Your task to perform on an android device: open a new tab in the chrome app Image 0: 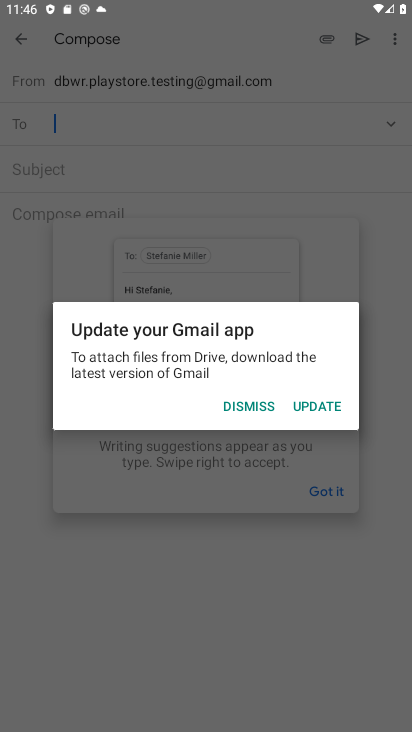
Step 0: press home button
Your task to perform on an android device: open a new tab in the chrome app Image 1: 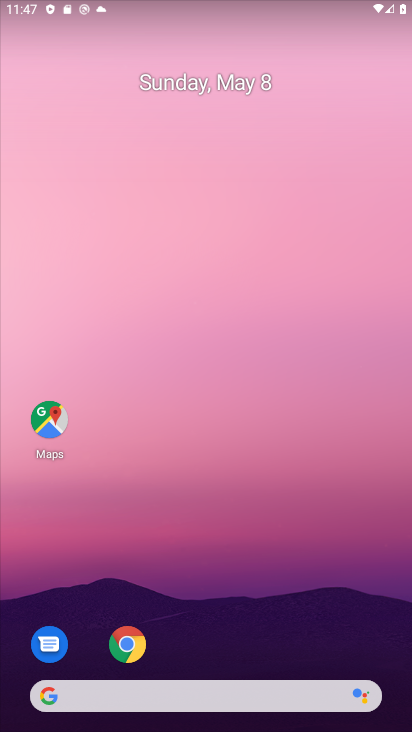
Step 1: click (127, 644)
Your task to perform on an android device: open a new tab in the chrome app Image 2: 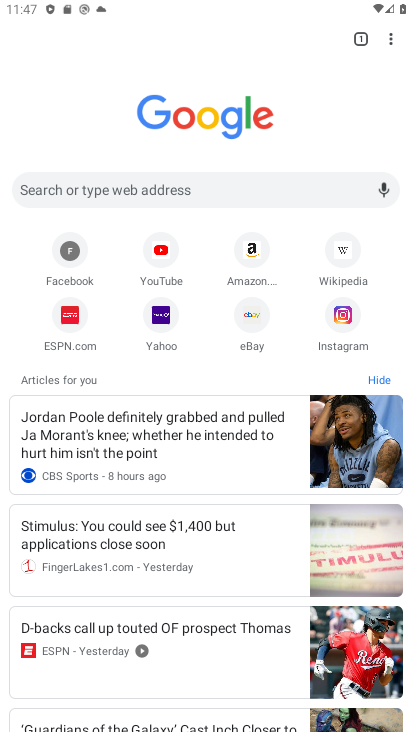
Step 2: click (391, 39)
Your task to perform on an android device: open a new tab in the chrome app Image 3: 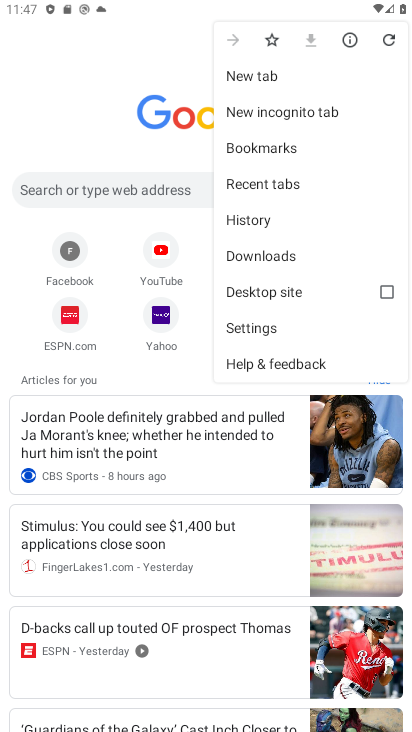
Step 3: click (266, 72)
Your task to perform on an android device: open a new tab in the chrome app Image 4: 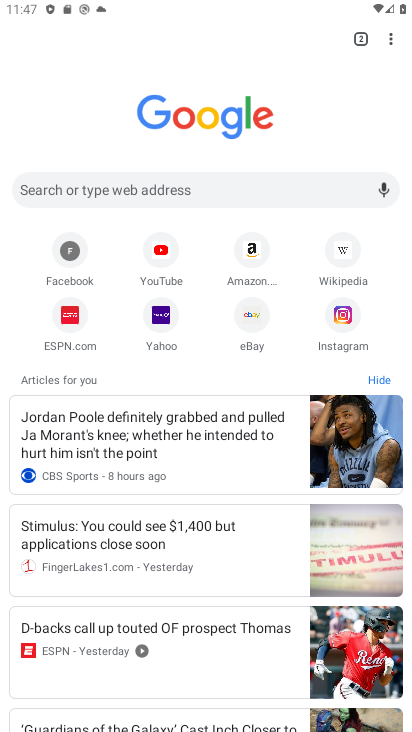
Step 4: task complete